Your task to perform on an android device: Open maps Image 0: 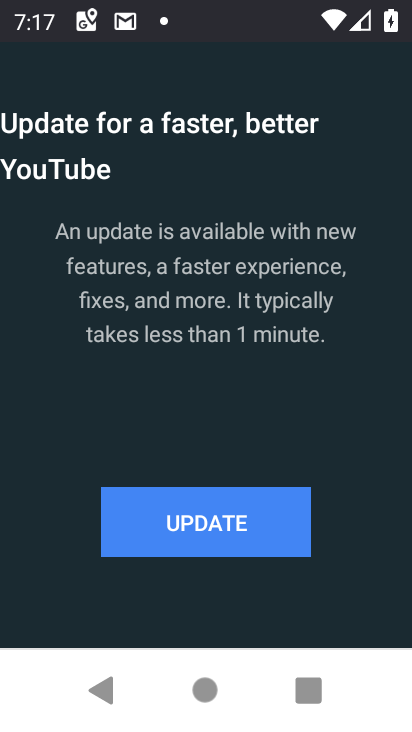
Step 0: press home button
Your task to perform on an android device: Open maps Image 1: 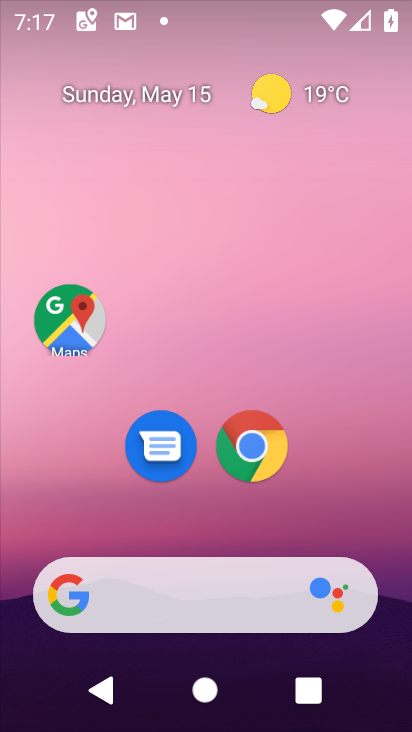
Step 1: drag from (271, 631) to (224, 216)
Your task to perform on an android device: Open maps Image 2: 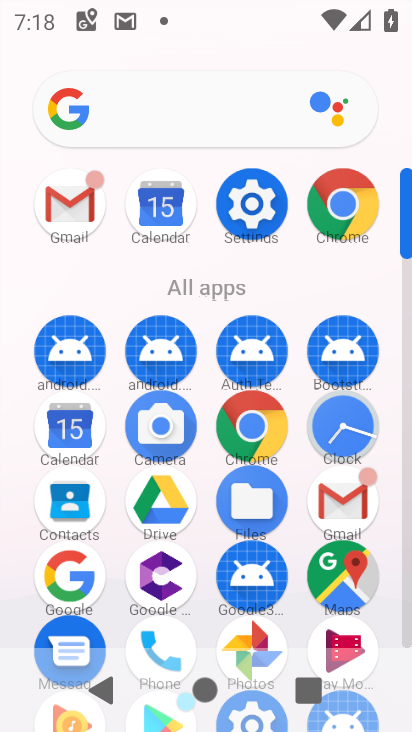
Step 2: click (326, 573)
Your task to perform on an android device: Open maps Image 3: 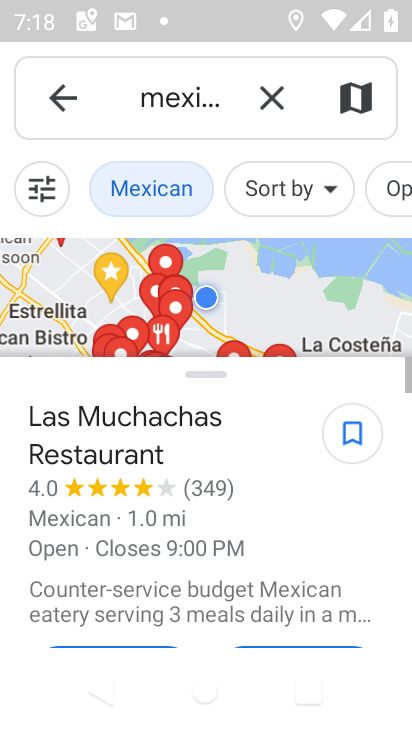
Step 3: click (48, 103)
Your task to perform on an android device: Open maps Image 4: 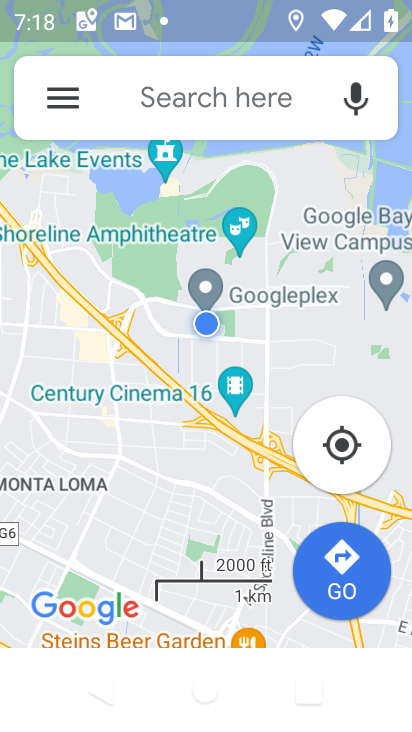
Step 4: click (337, 450)
Your task to perform on an android device: Open maps Image 5: 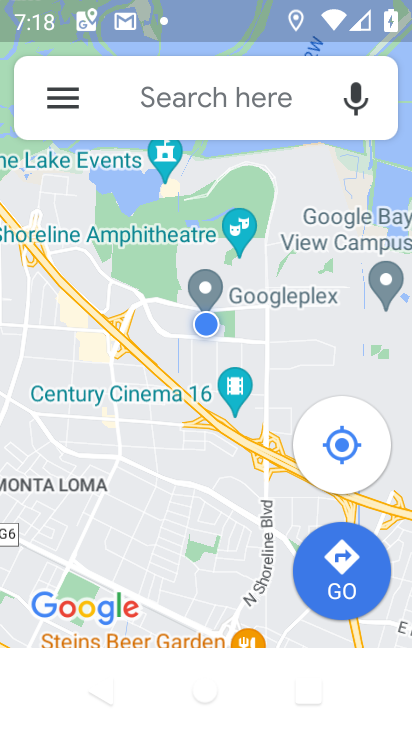
Step 5: click (352, 425)
Your task to perform on an android device: Open maps Image 6: 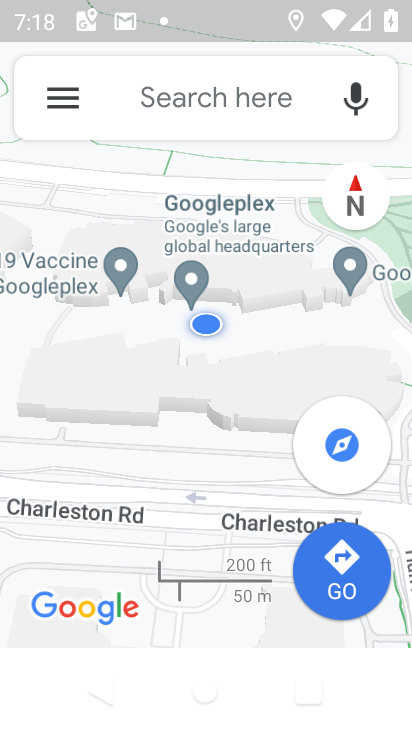
Step 6: task complete